Your task to perform on an android device: Open eBay Image 0: 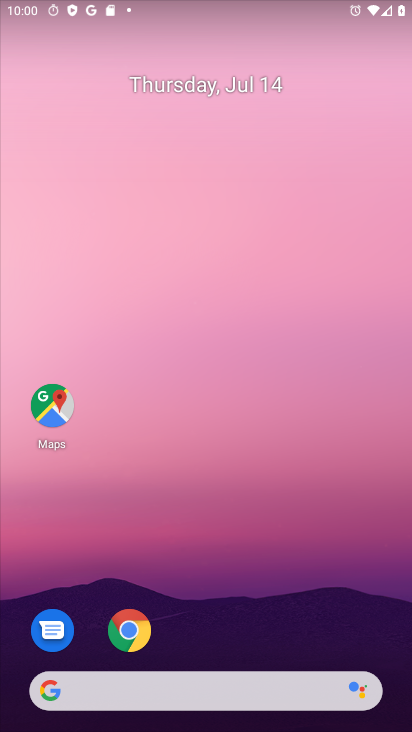
Step 0: click (100, 688)
Your task to perform on an android device: Open eBay Image 1: 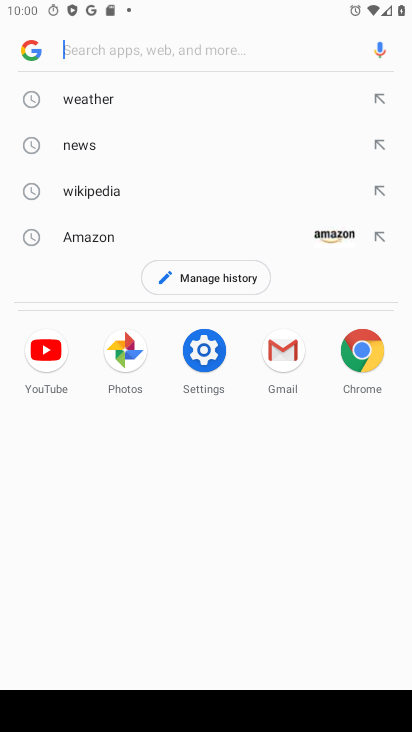
Step 1: type "eBay"
Your task to perform on an android device: Open eBay Image 2: 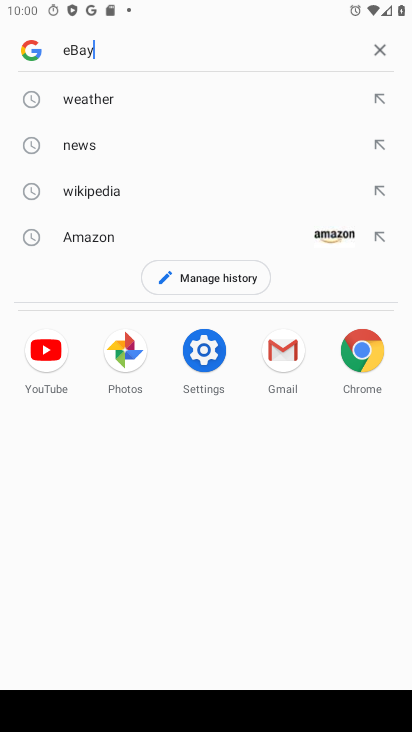
Step 2: type ""
Your task to perform on an android device: Open eBay Image 3: 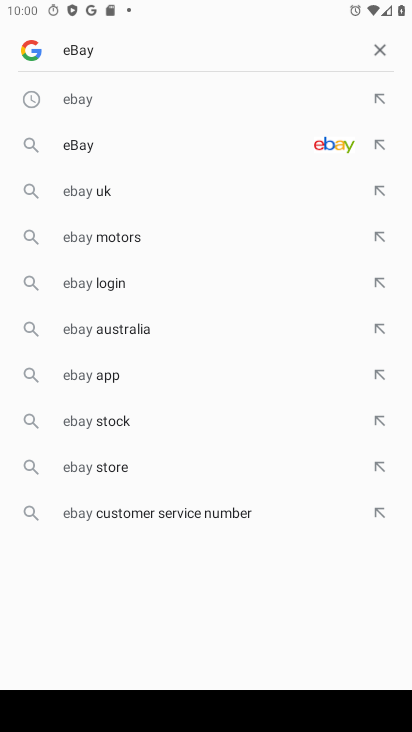
Step 3: click (87, 150)
Your task to perform on an android device: Open eBay Image 4: 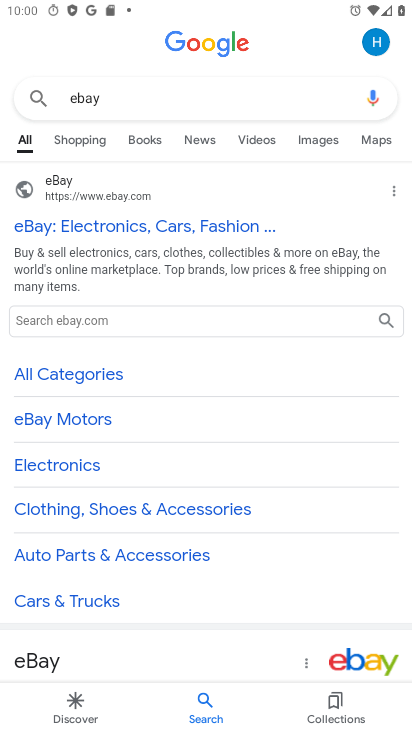
Step 4: task complete